Your task to perform on an android device: Search for "logitech g910" on amazon, select the first entry, and add it to the cart. Image 0: 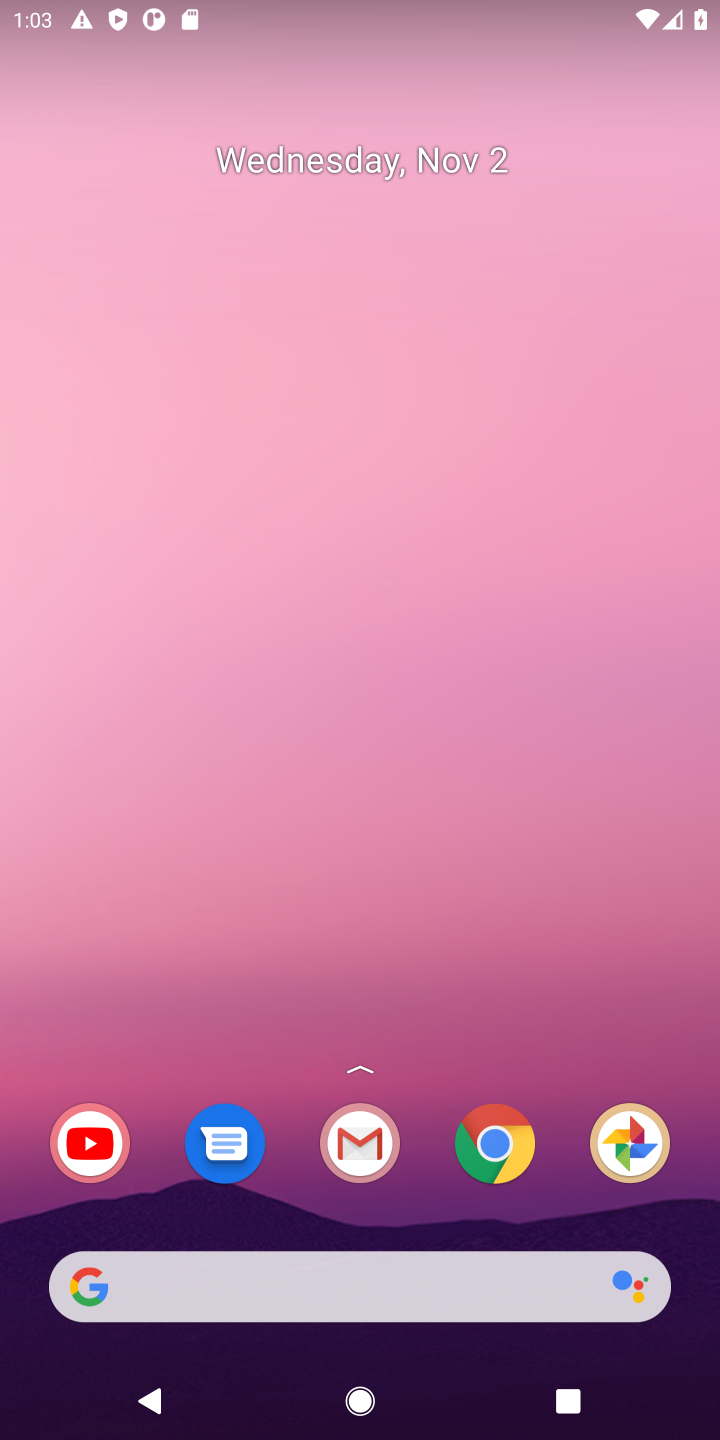
Step 0: press home button
Your task to perform on an android device: Search for "logitech g910" on amazon, select the first entry, and add it to the cart. Image 1: 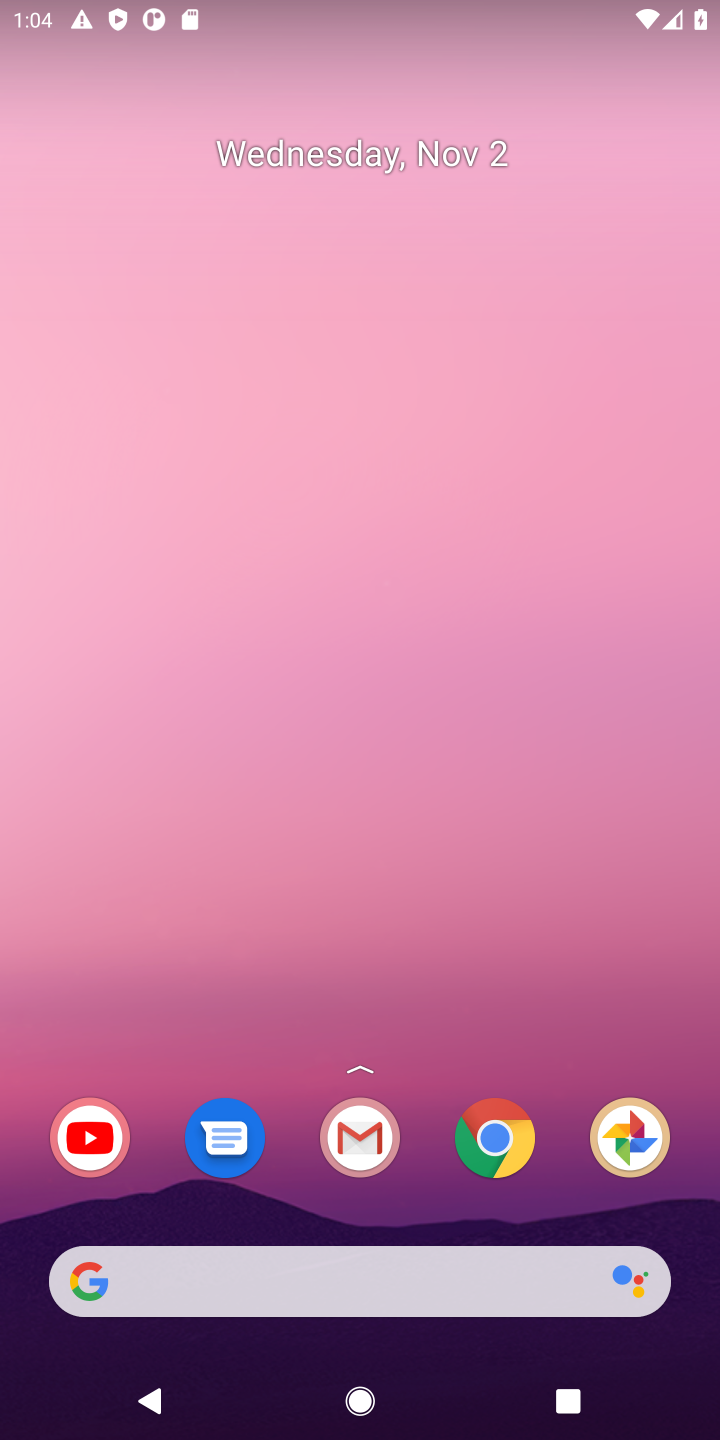
Step 1: click (146, 1288)
Your task to perform on an android device: Search for "logitech g910" on amazon, select the first entry, and add it to the cart. Image 2: 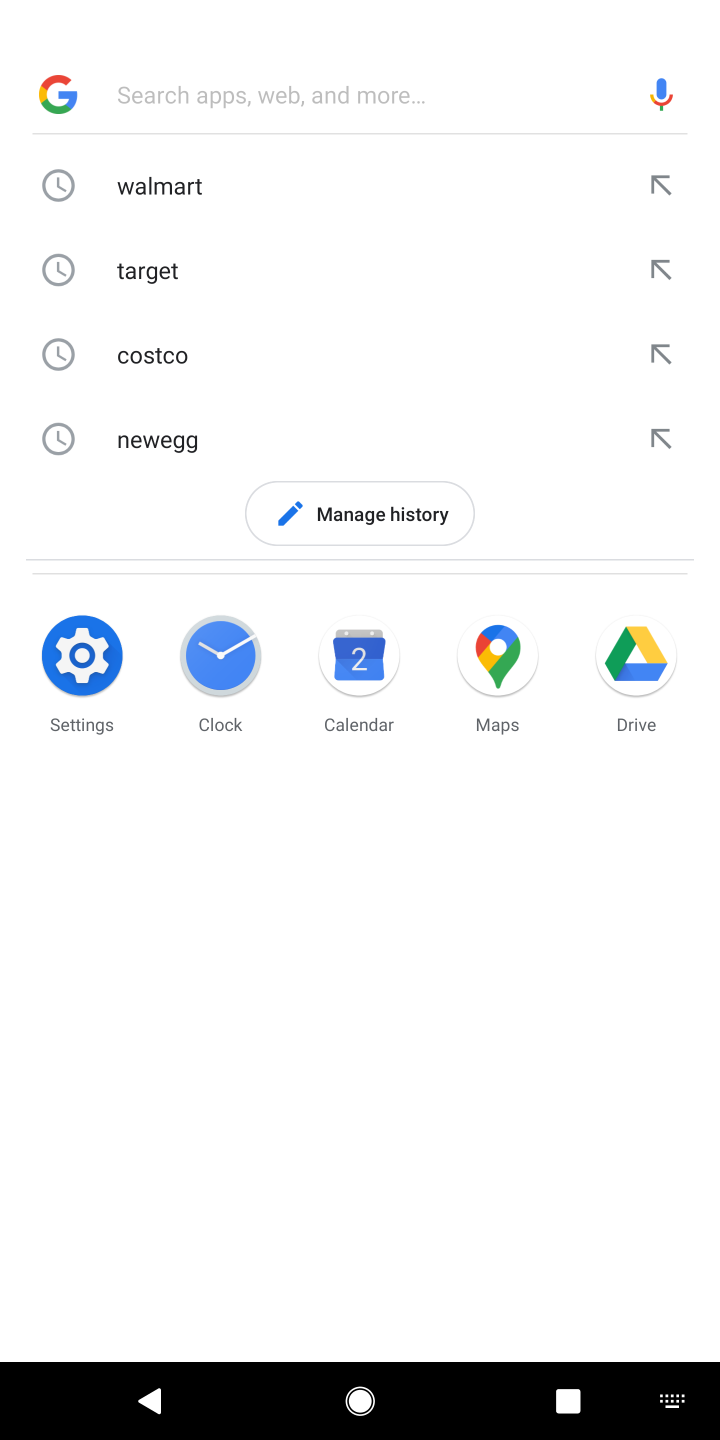
Step 2: type "amazon"
Your task to perform on an android device: Search for "logitech g910" on amazon, select the first entry, and add it to the cart. Image 3: 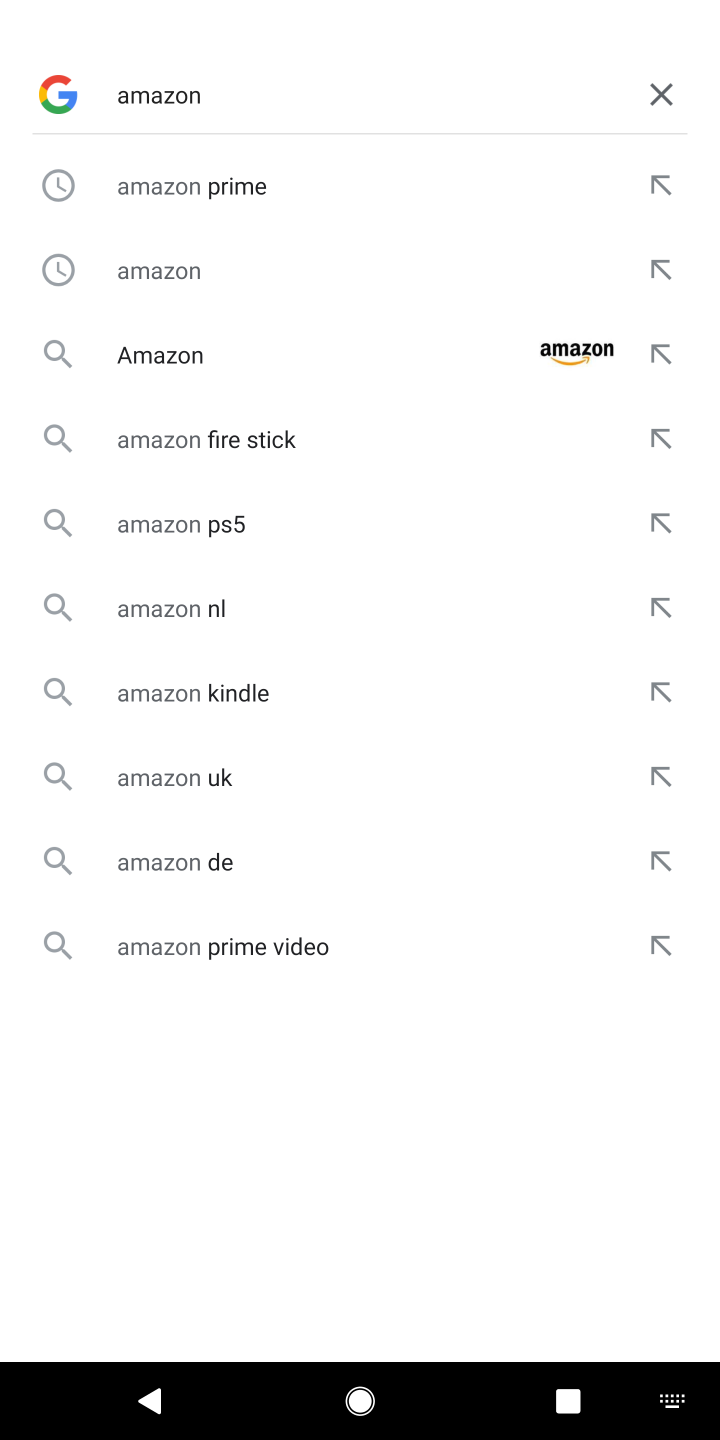
Step 3: press enter
Your task to perform on an android device: Search for "logitech g910" on amazon, select the first entry, and add it to the cart. Image 4: 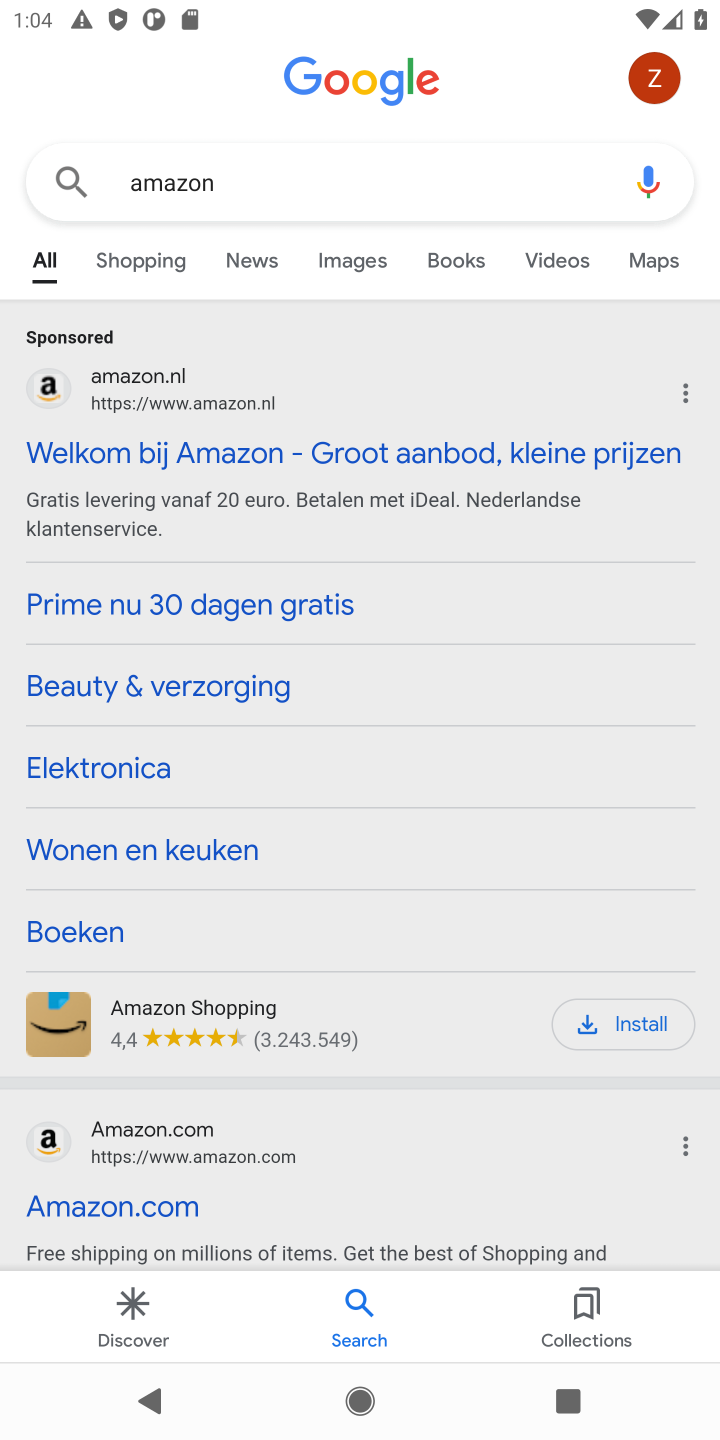
Step 4: click (376, 448)
Your task to perform on an android device: Search for "logitech g910" on amazon, select the first entry, and add it to the cart. Image 5: 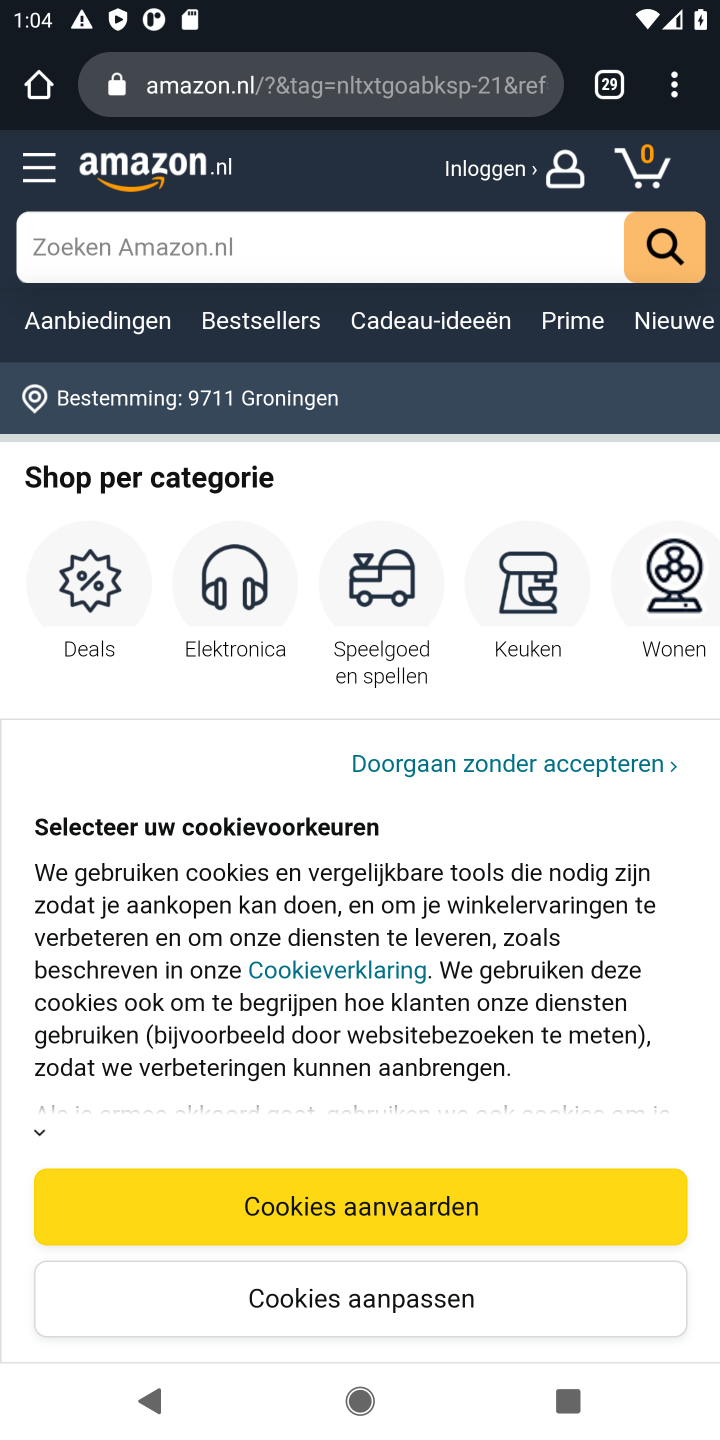
Step 5: click (223, 245)
Your task to perform on an android device: Search for "logitech g910" on amazon, select the first entry, and add it to the cart. Image 6: 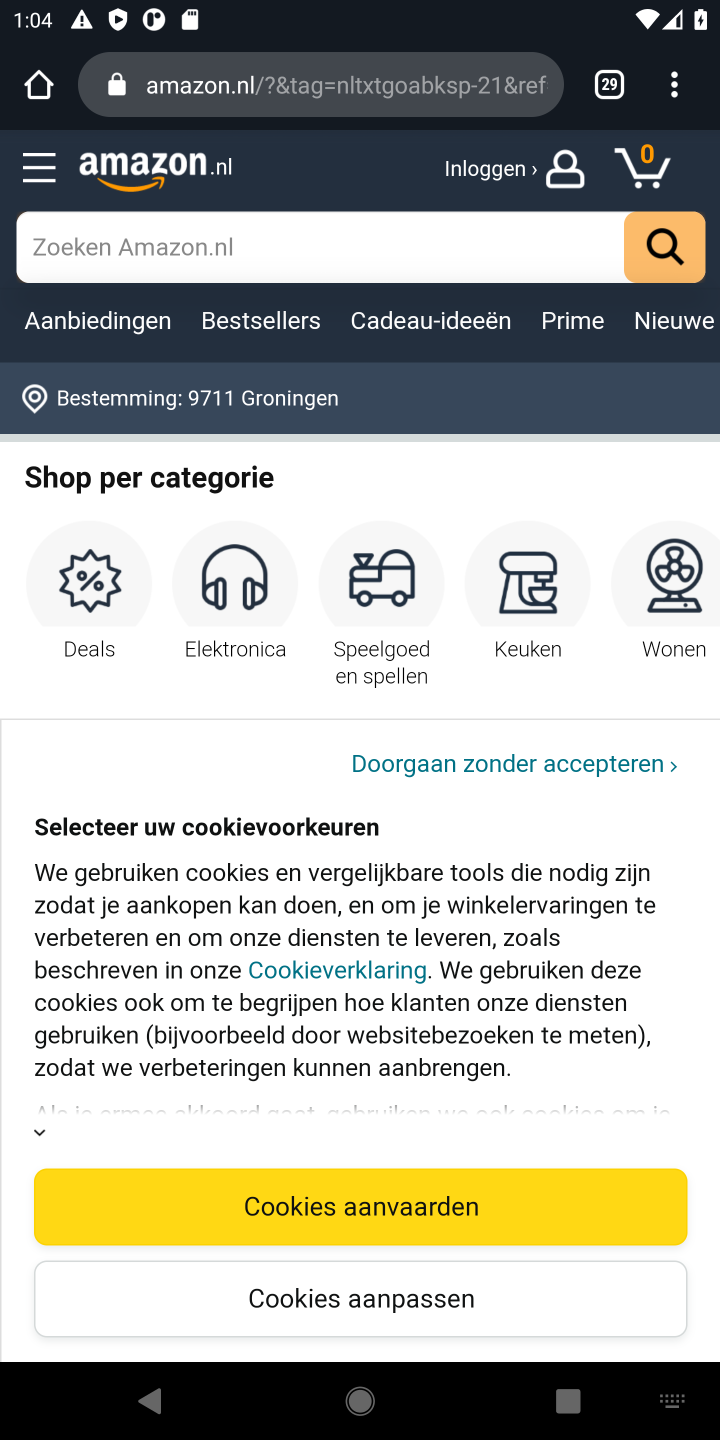
Step 6: type "logitech g910"
Your task to perform on an android device: Search for "logitech g910" on amazon, select the first entry, and add it to the cart. Image 7: 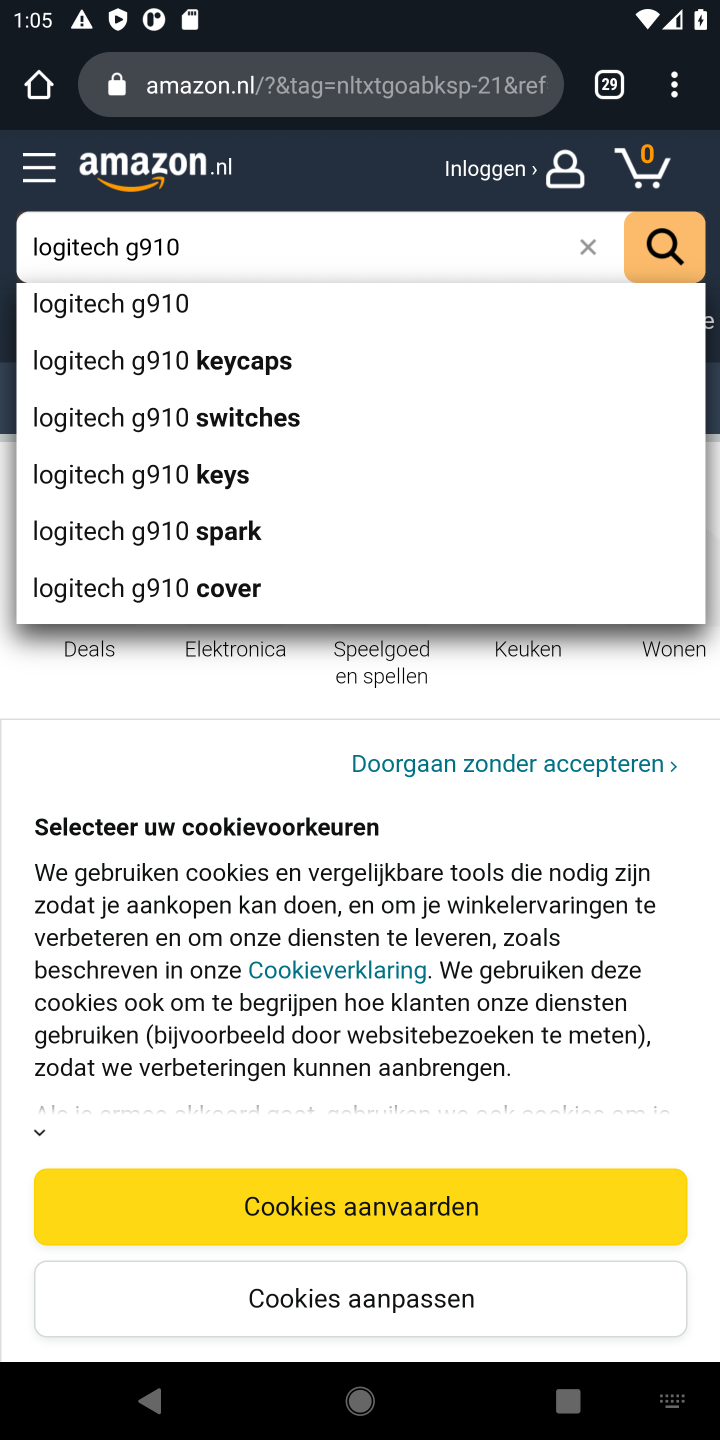
Step 7: click (670, 255)
Your task to perform on an android device: Search for "logitech g910" on amazon, select the first entry, and add it to the cart. Image 8: 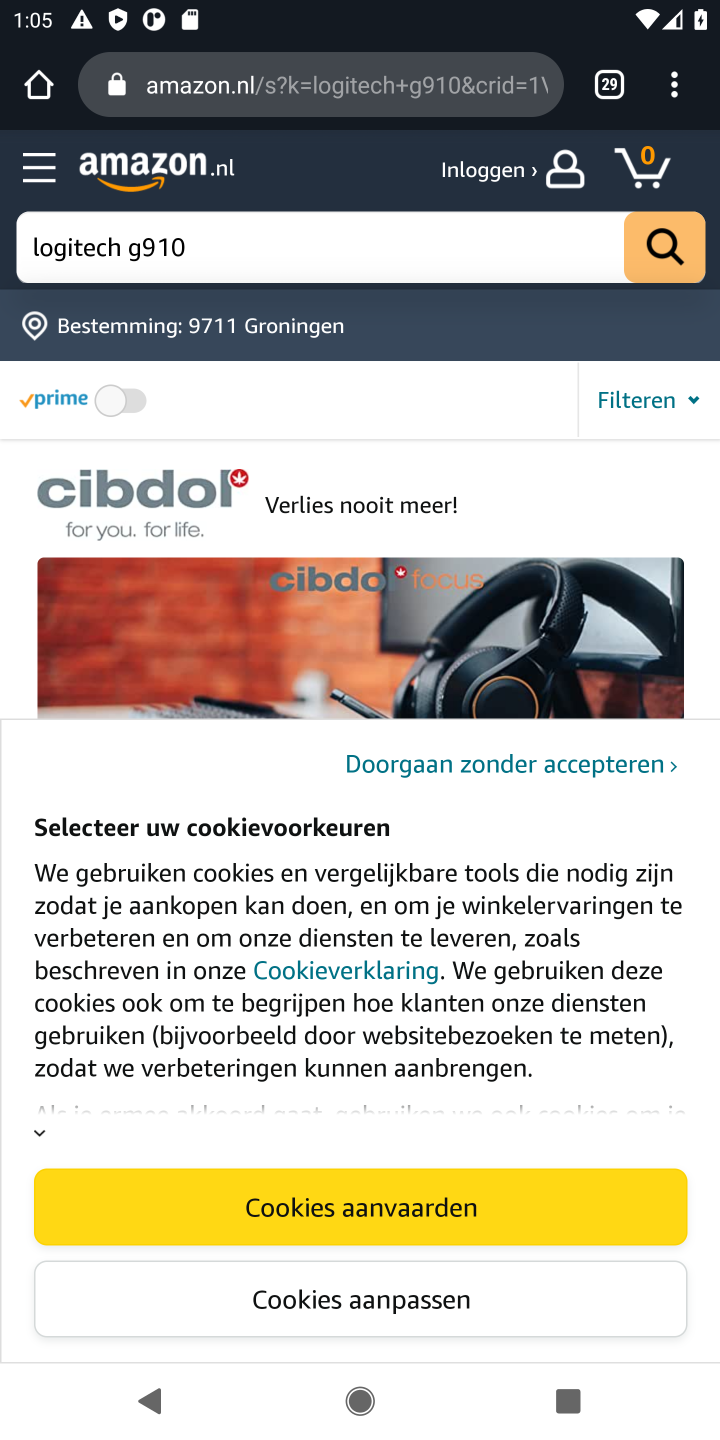
Step 8: click (520, 1212)
Your task to perform on an android device: Search for "logitech g910" on amazon, select the first entry, and add it to the cart. Image 9: 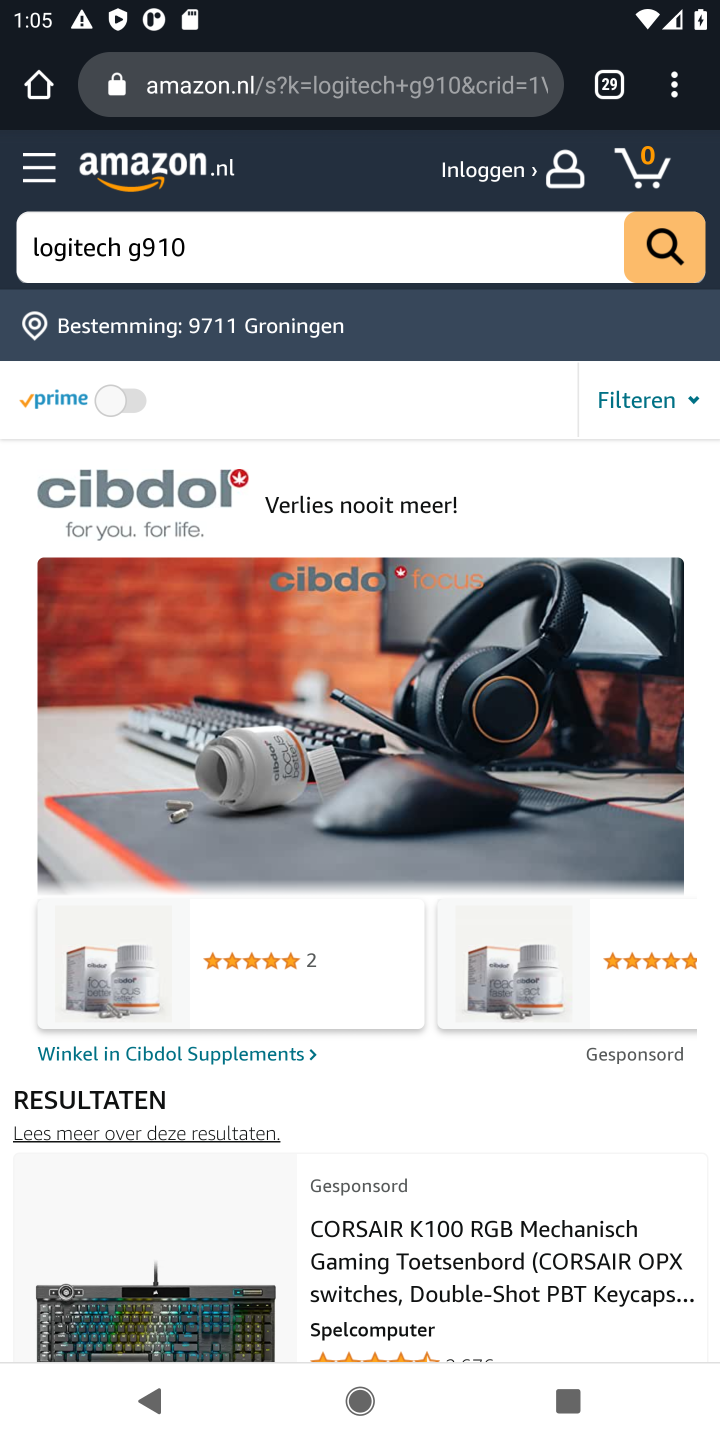
Step 9: drag from (502, 1174) to (460, 811)
Your task to perform on an android device: Search for "logitech g910" on amazon, select the first entry, and add it to the cart. Image 10: 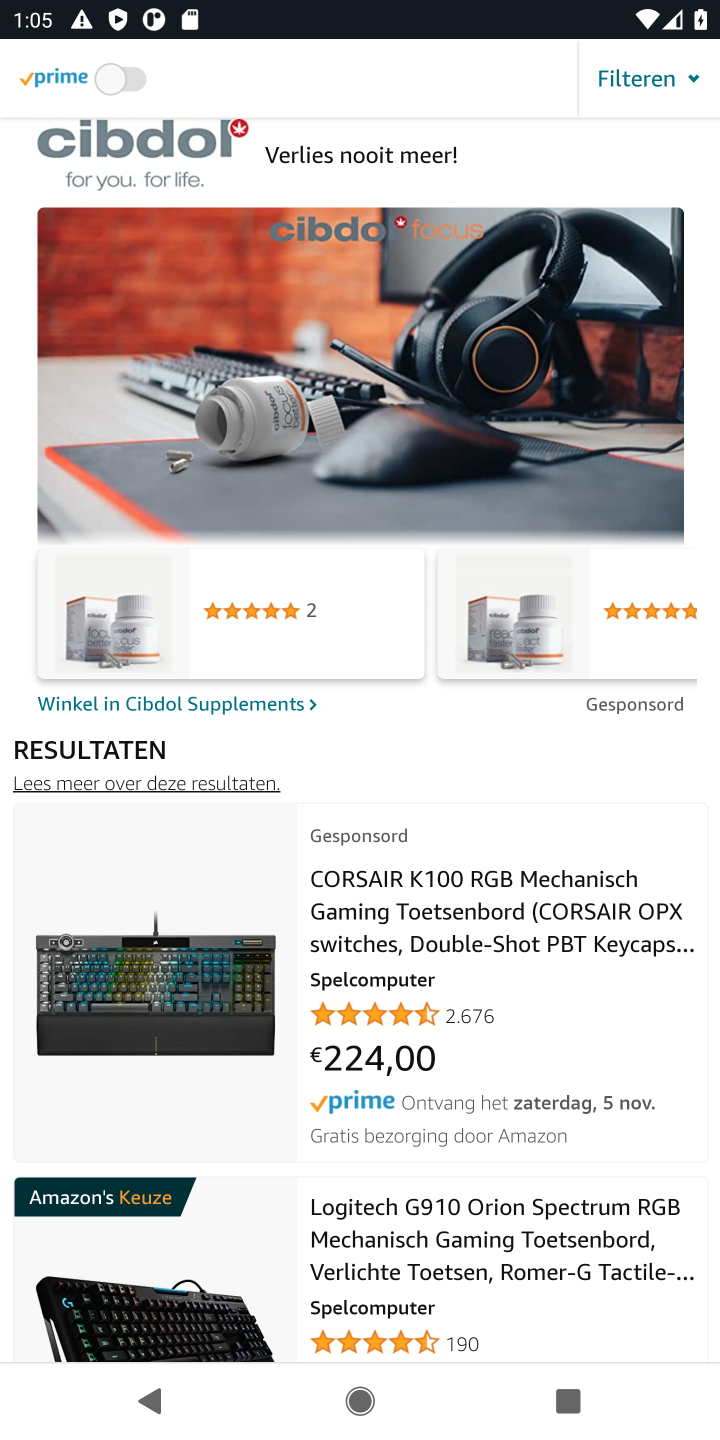
Step 10: drag from (424, 1022) to (425, 786)
Your task to perform on an android device: Search for "logitech g910" on amazon, select the first entry, and add it to the cart. Image 11: 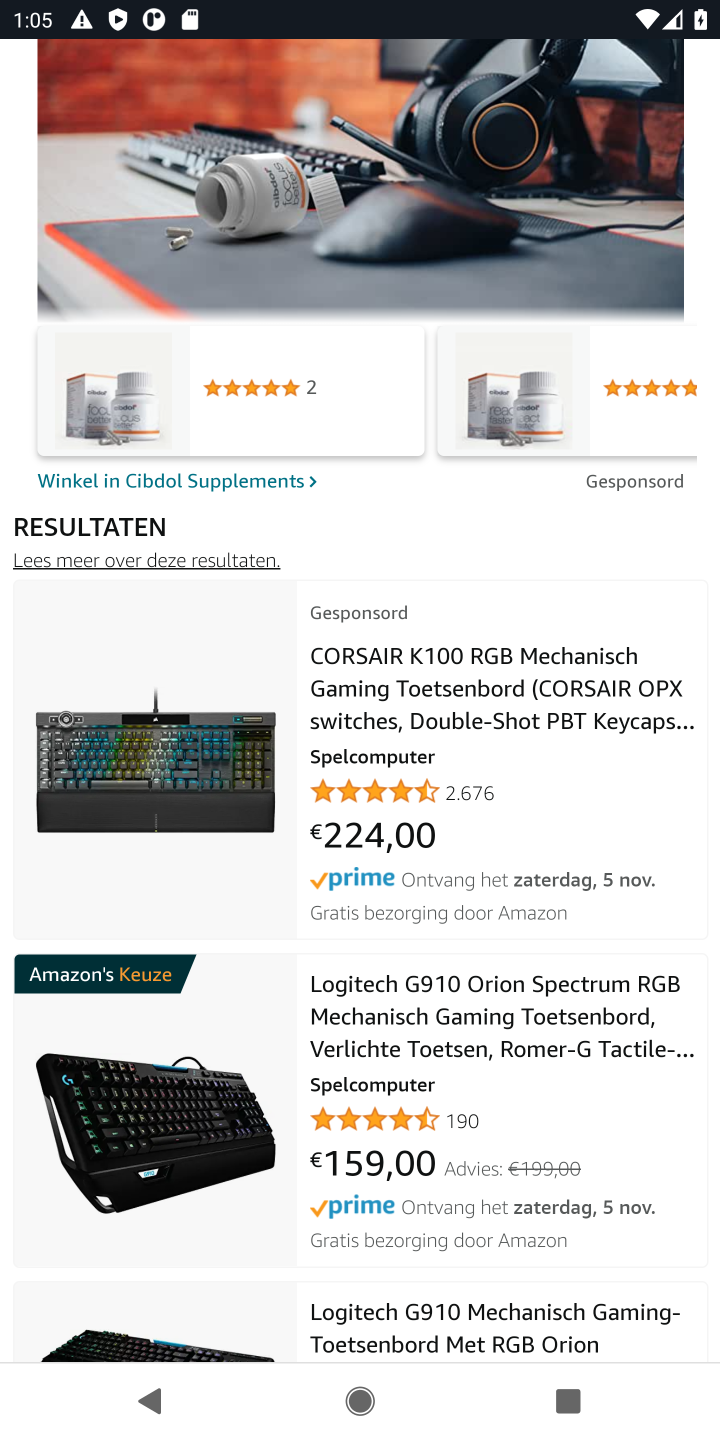
Step 11: click (420, 1014)
Your task to perform on an android device: Search for "logitech g910" on amazon, select the first entry, and add it to the cart. Image 12: 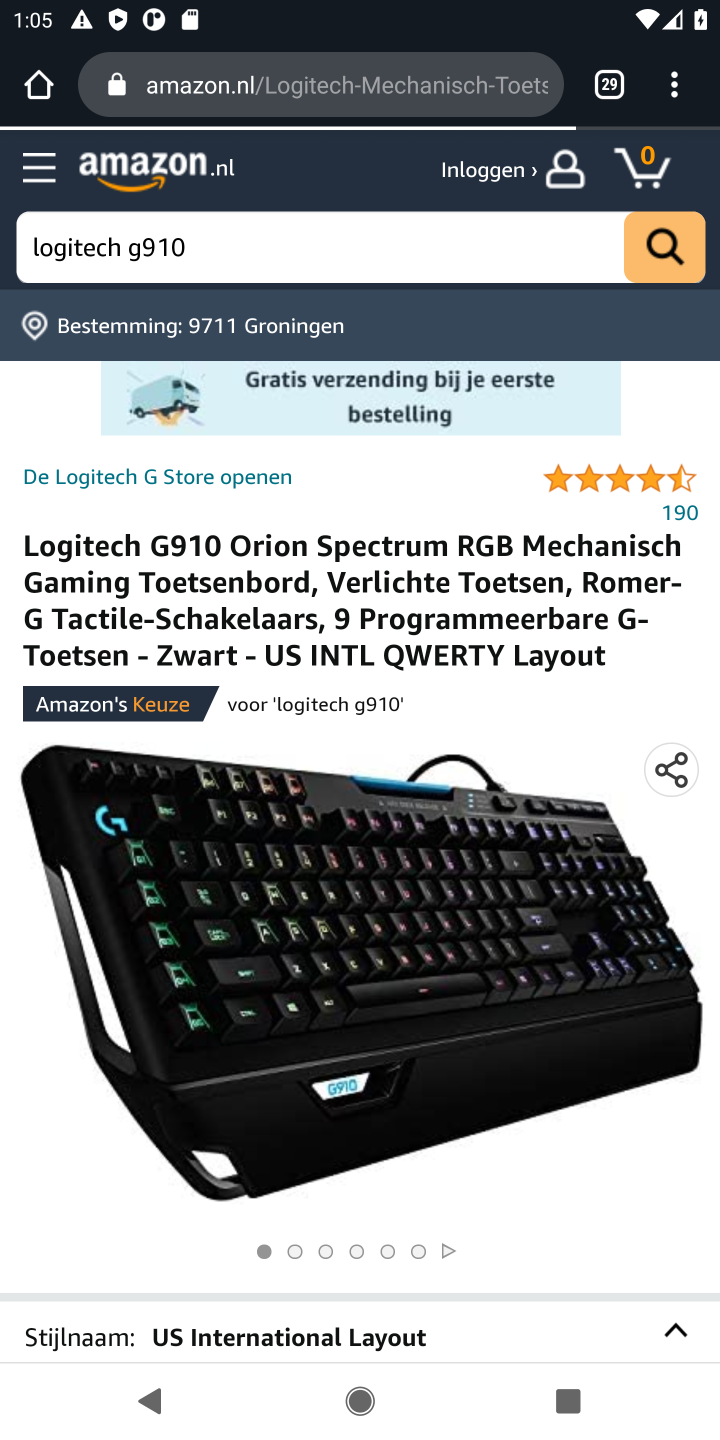
Step 12: drag from (413, 982) to (391, 634)
Your task to perform on an android device: Search for "logitech g910" on amazon, select the first entry, and add it to the cart. Image 13: 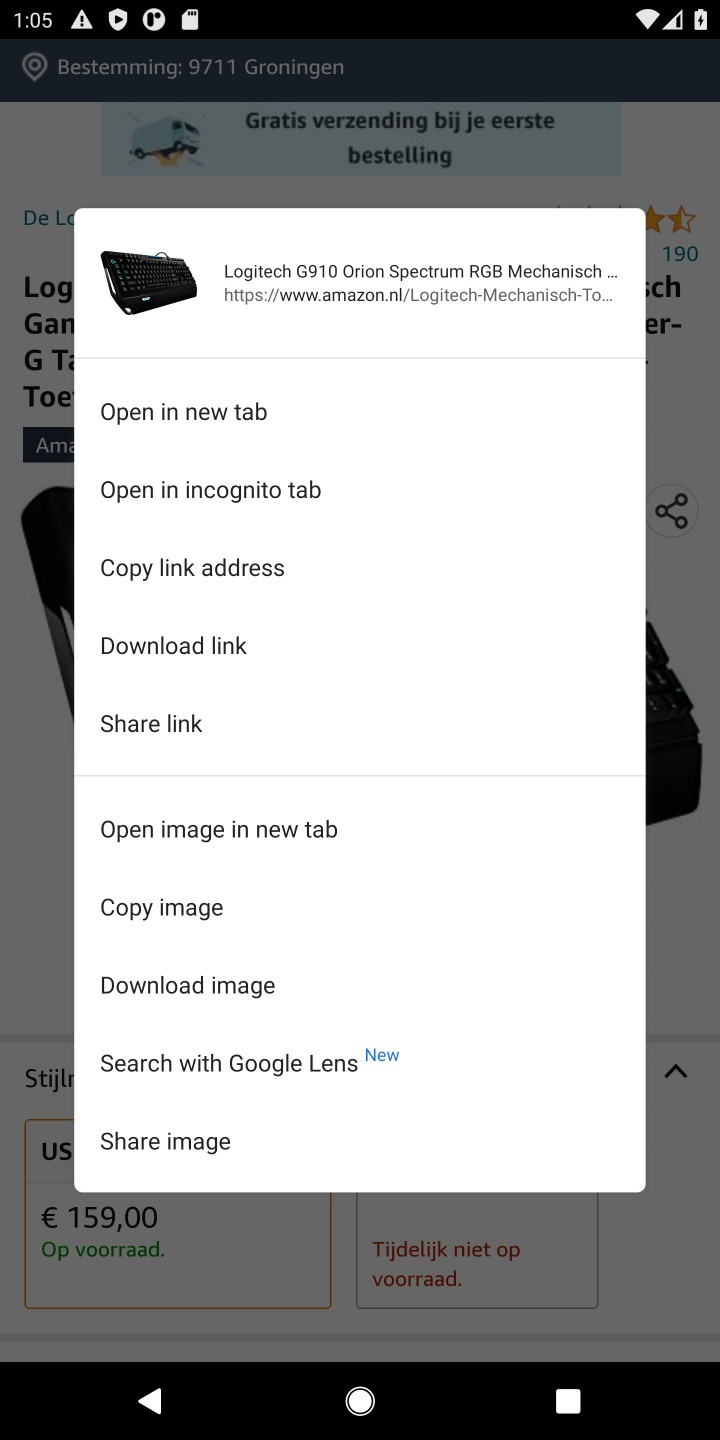
Step 13: drag from (363, 977) to (374, 570)
Your task to perform on an android device: Search for "logitech g910" on amazon, select the first entry, and add it to the cart. Image 14: 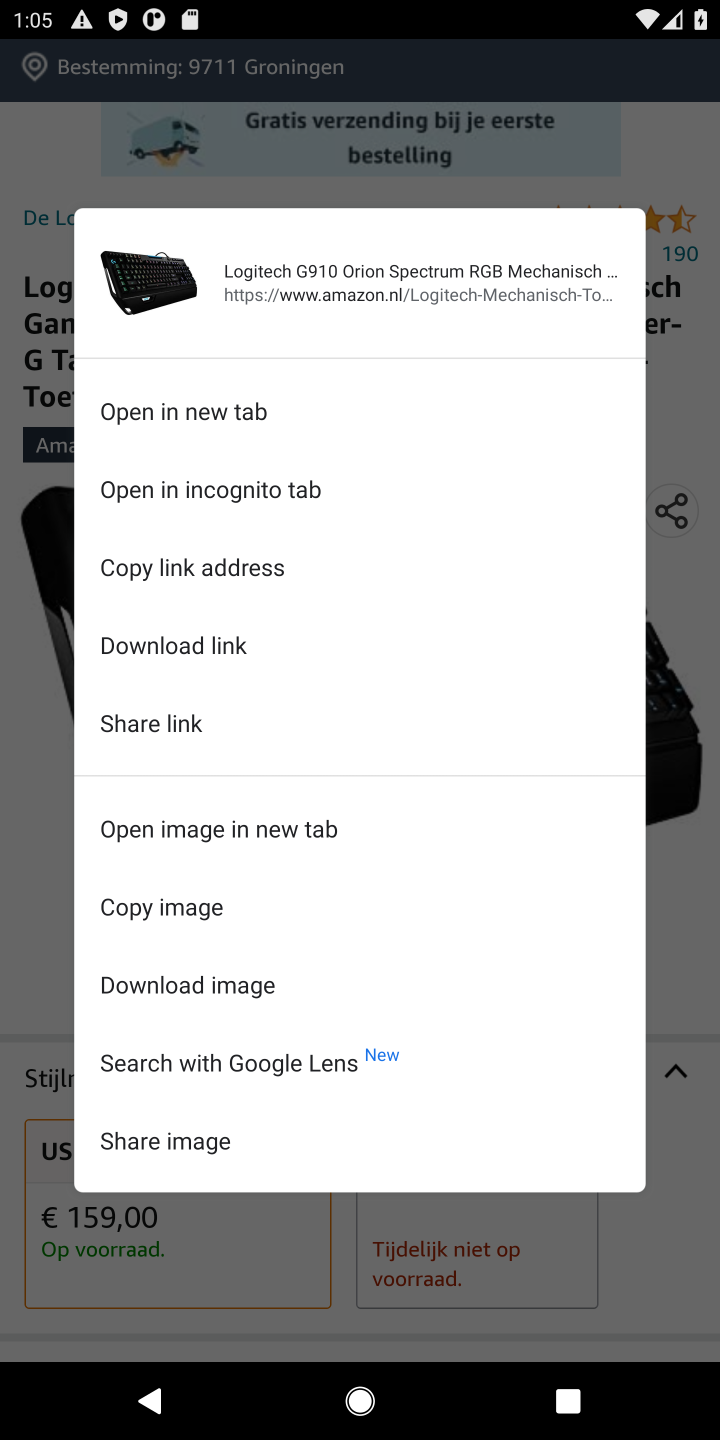
Step 14: click (377, 1221)
Your task to perform on an android device: Search for "logitech g910" on amazon, select the first entry, and add it to the cart. Image 15: 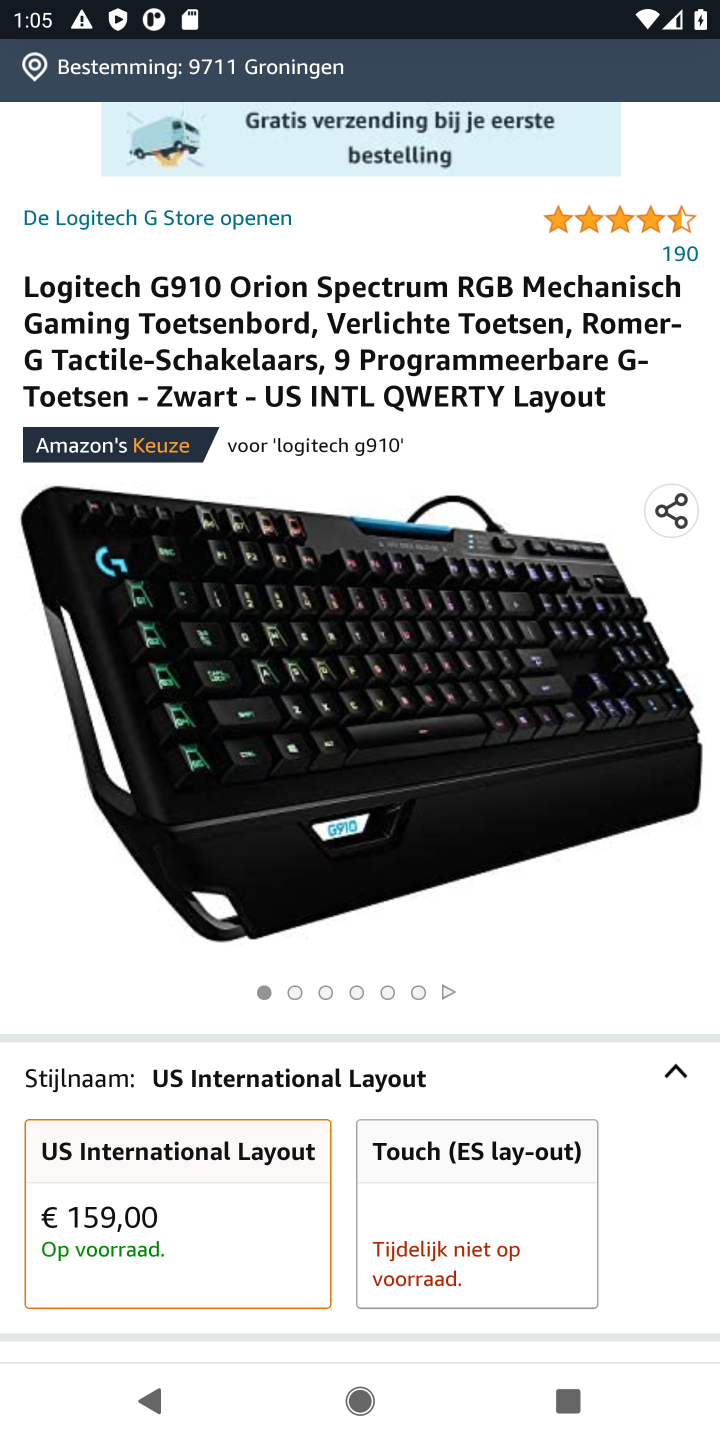
Step 15: drag from (526, 1013) to (494, 405)
Your task to perform on an android device: Search for "logitech g910" on amazon, select the first entry, and add it to the cart. Image 16: 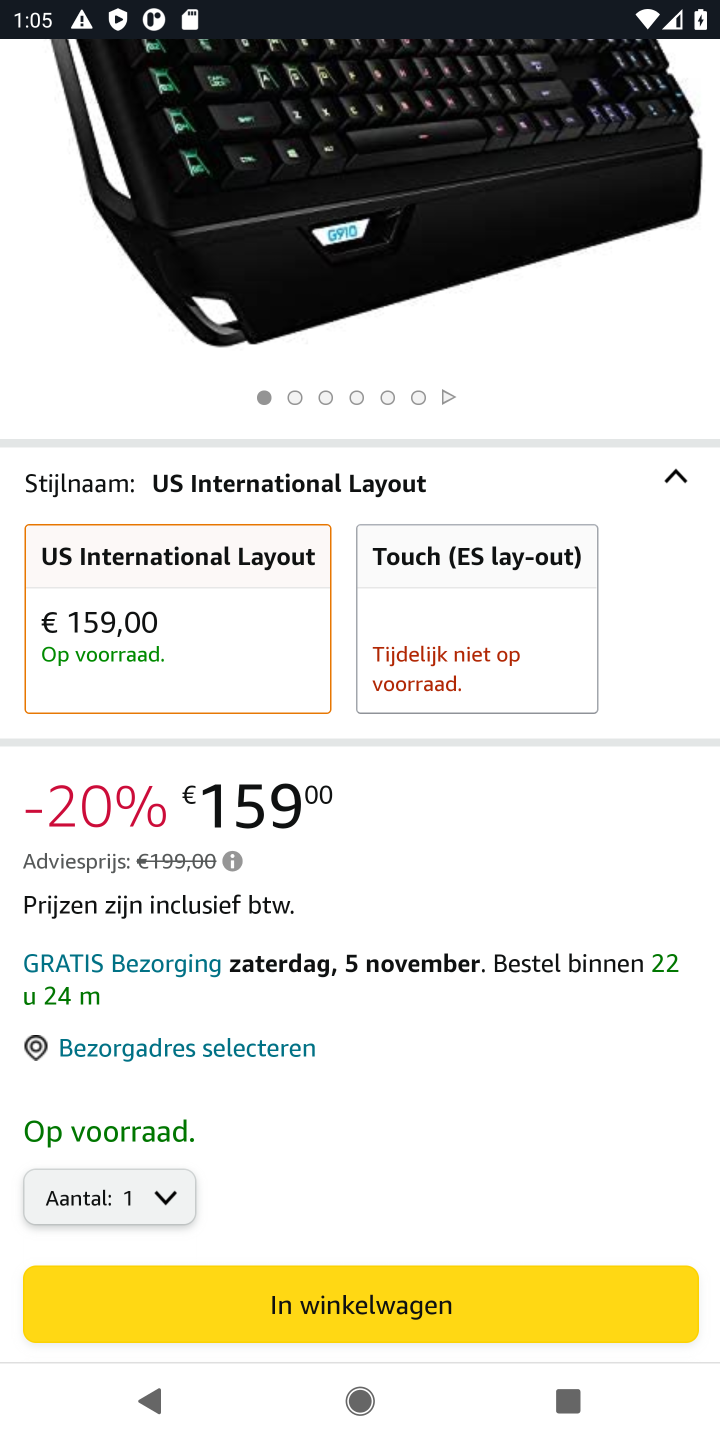
Step 16: drag from (474, 816) to (504, 607)
Your task to perform on an android device: Search for "logitech g910" on amazon, select the first entry, and add it to the cart. Image 17: 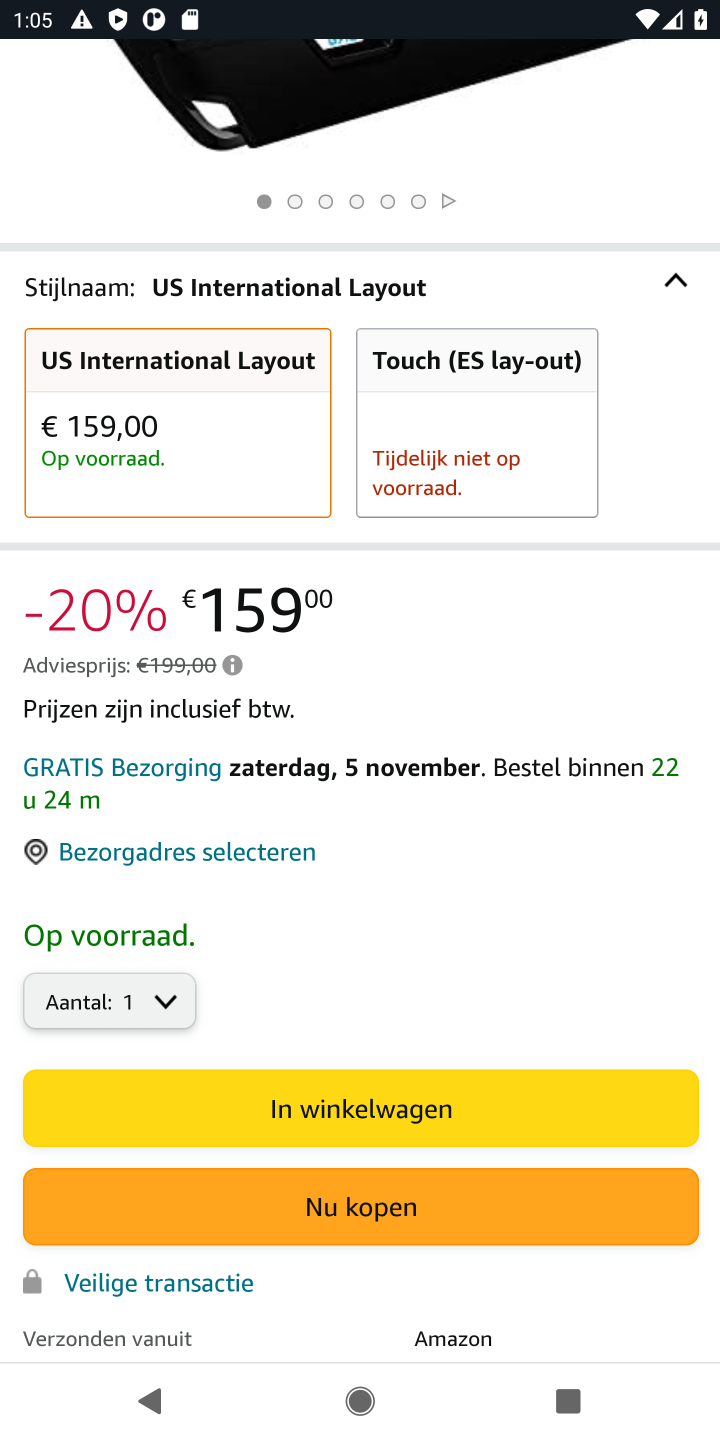
Step 17: drag from (476, 946) to (523, 767)
Your task to perform on an android device: Search for "logitech g910" on amazon, select the first entry, and add it to the cart. Image 18: 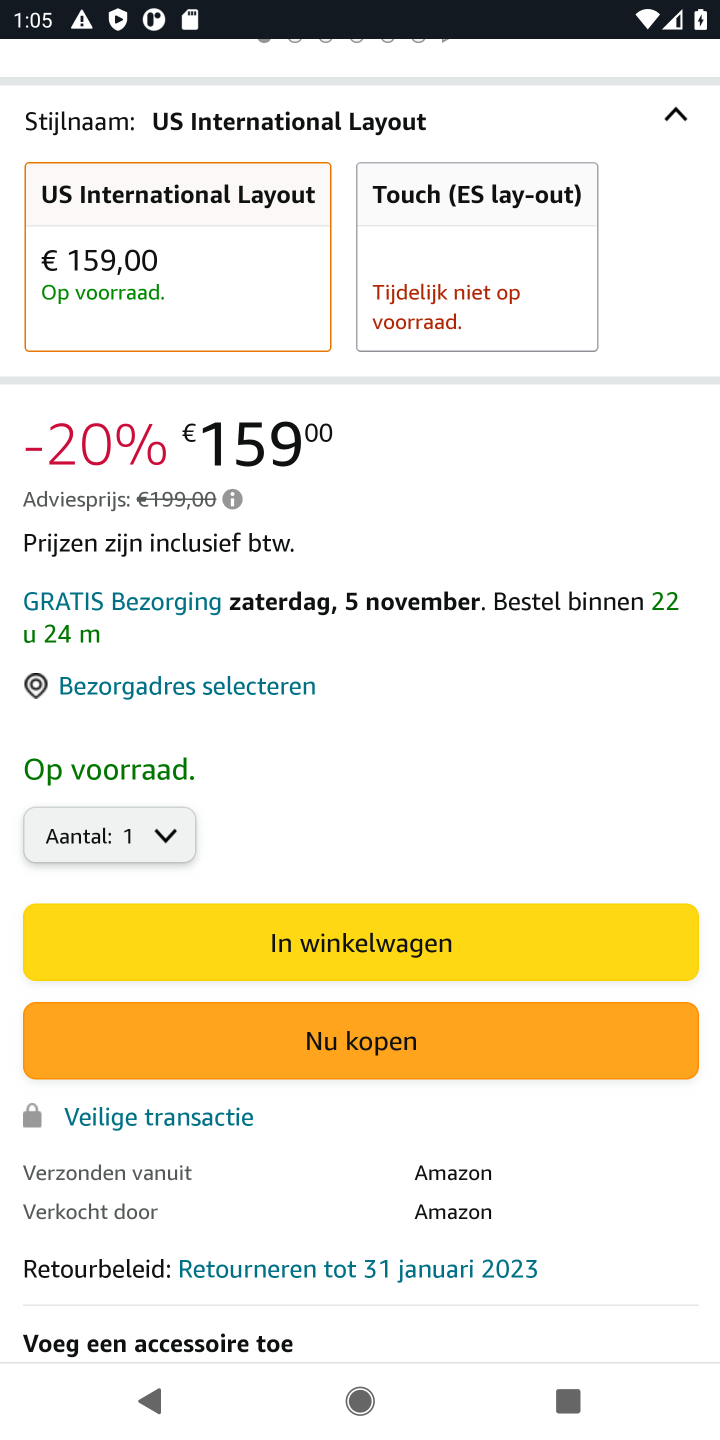
Step 18: click (323, 942)
Your task to perform on an android device: Search for "logitech g910" on amazon, select the first entry, and add it to the cart. Image 19: 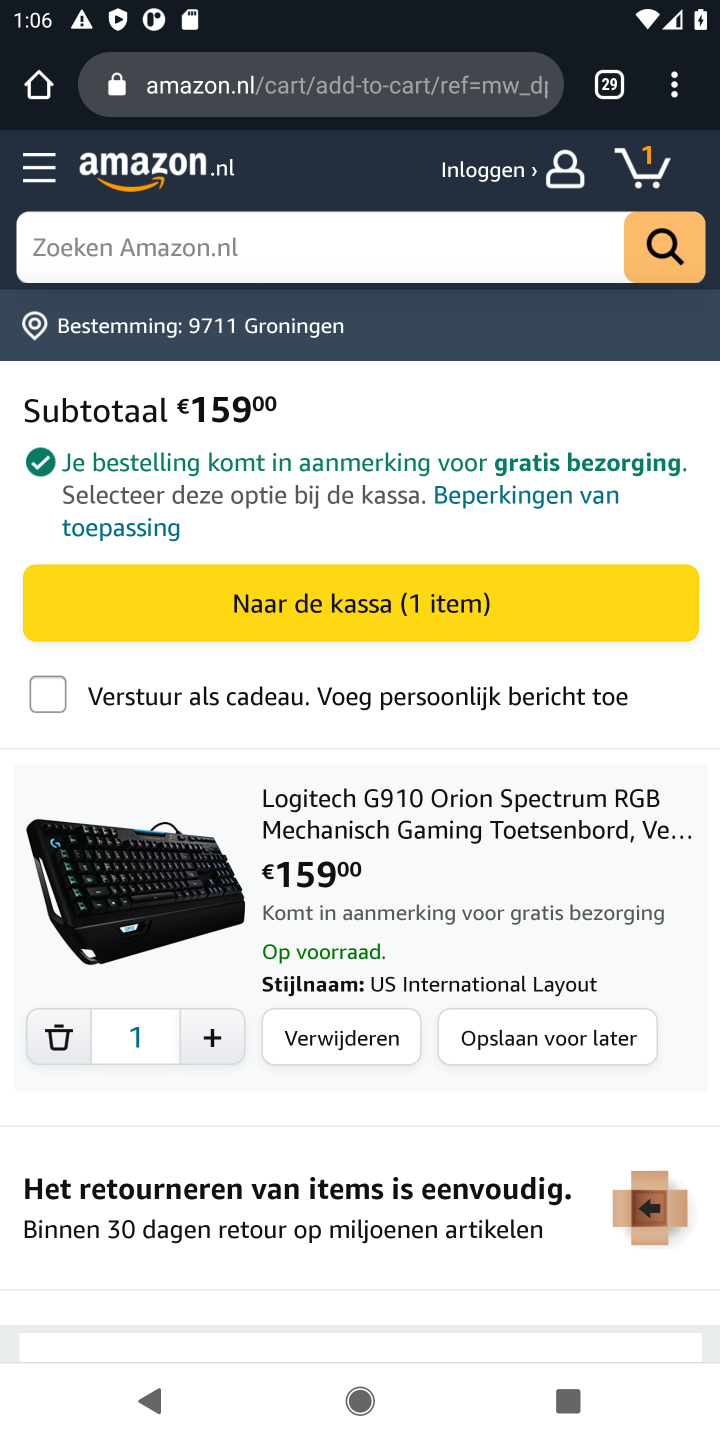
Step 19: task complete